Your task to perform on an android device: clear history in the chrome app Image 0: 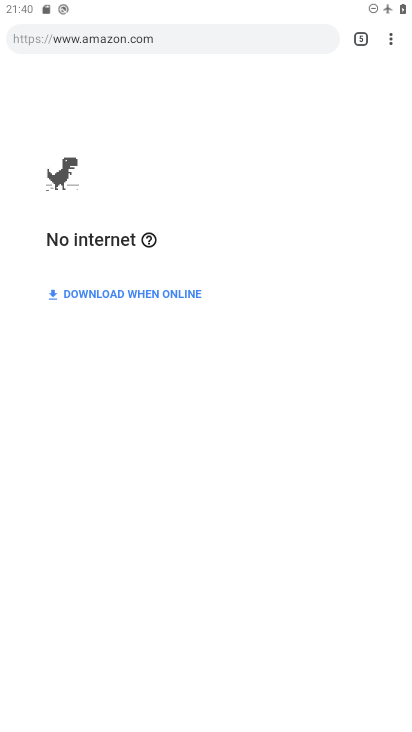
Step 0: press home button
Your task to perform on an android device: clear history in the chrome app Image 1: 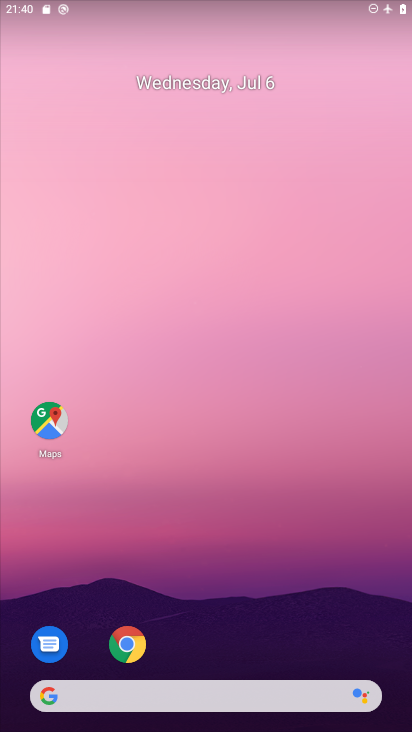
Step 1: click (138, 637)
Your task to perform on an android device: clear history in the chrome app Image 2: 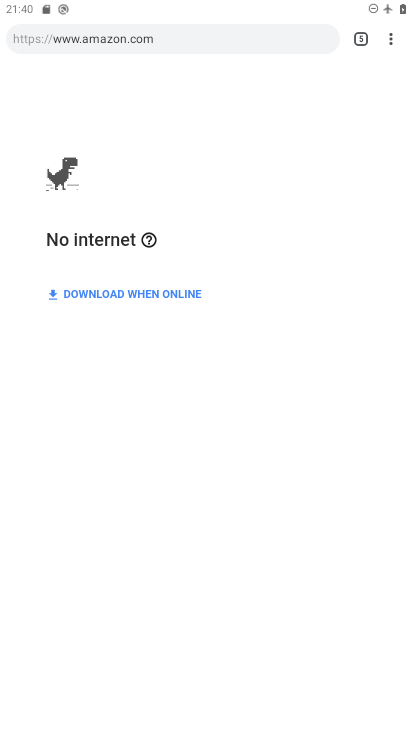
Step 2: click (387, 38)
Your task to perform on an android device: clear history in the chrome app Image 3: 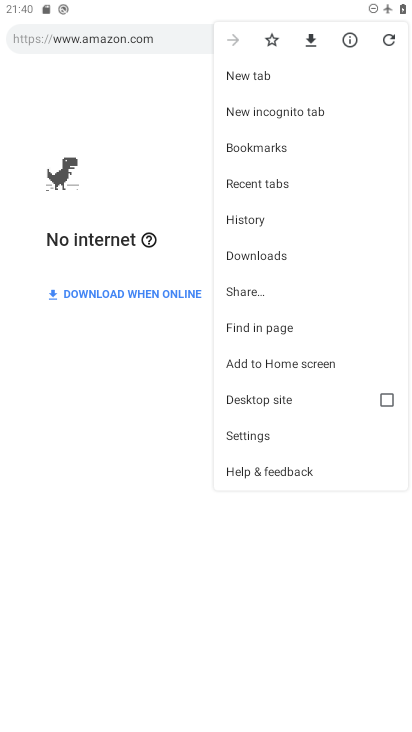
Step 3: click (261, 222)
Your task to perform on an android device: clear history in the chrome app Image 4: 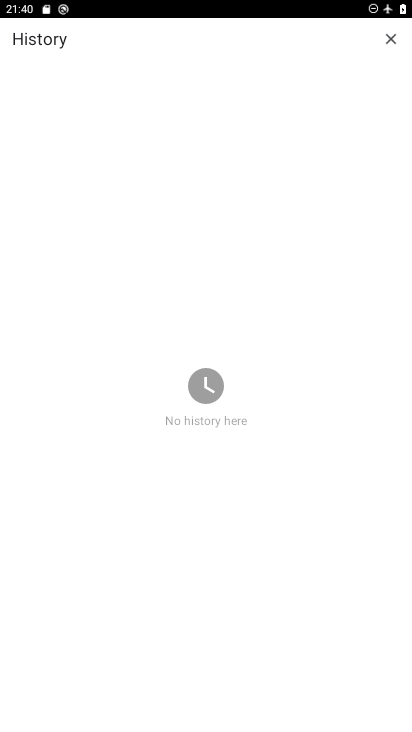
Step 4: task complete